Your task to perform on an android device: turn off priority inbox in the gmail app Image 0: 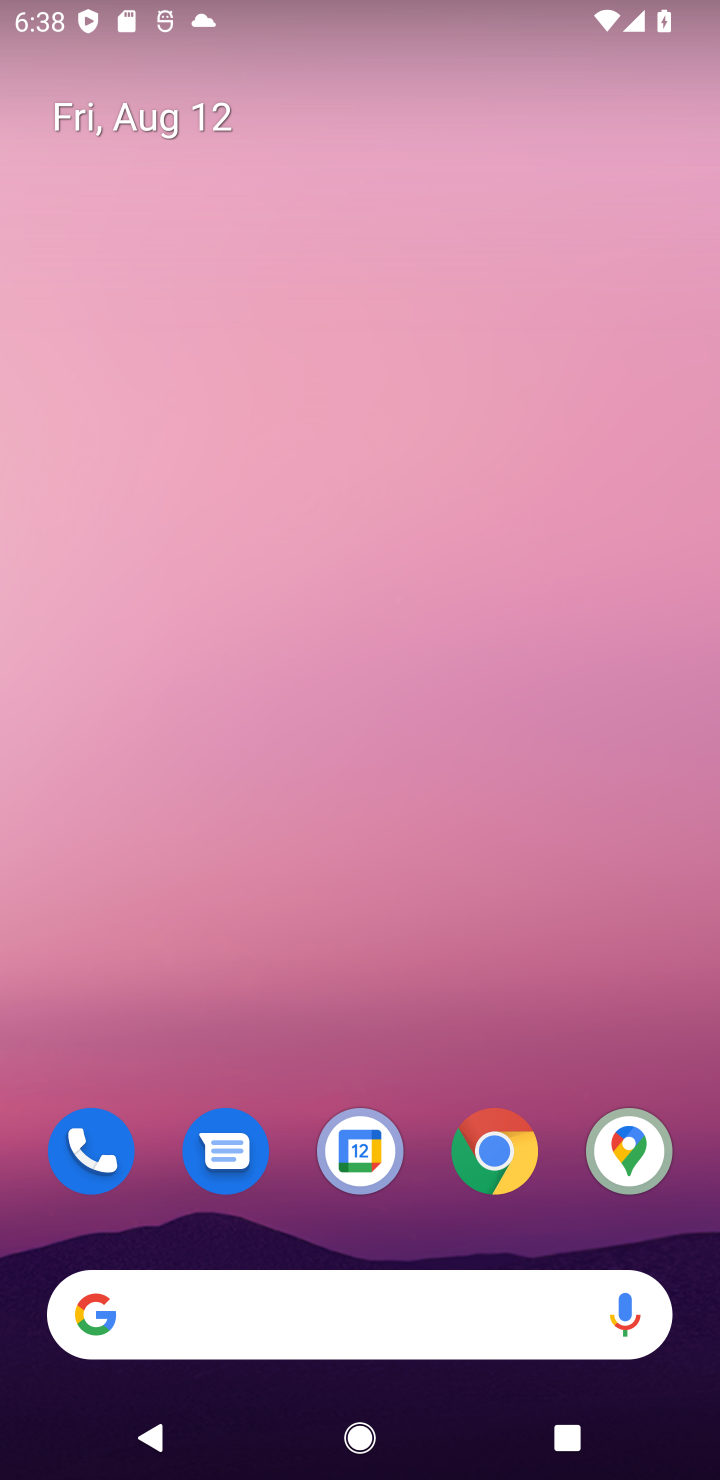
Step 0: drag from (475, 917) to (475, 0)
Your task to perform on an android device: turn off priority inbox in the gmail app Image 1: 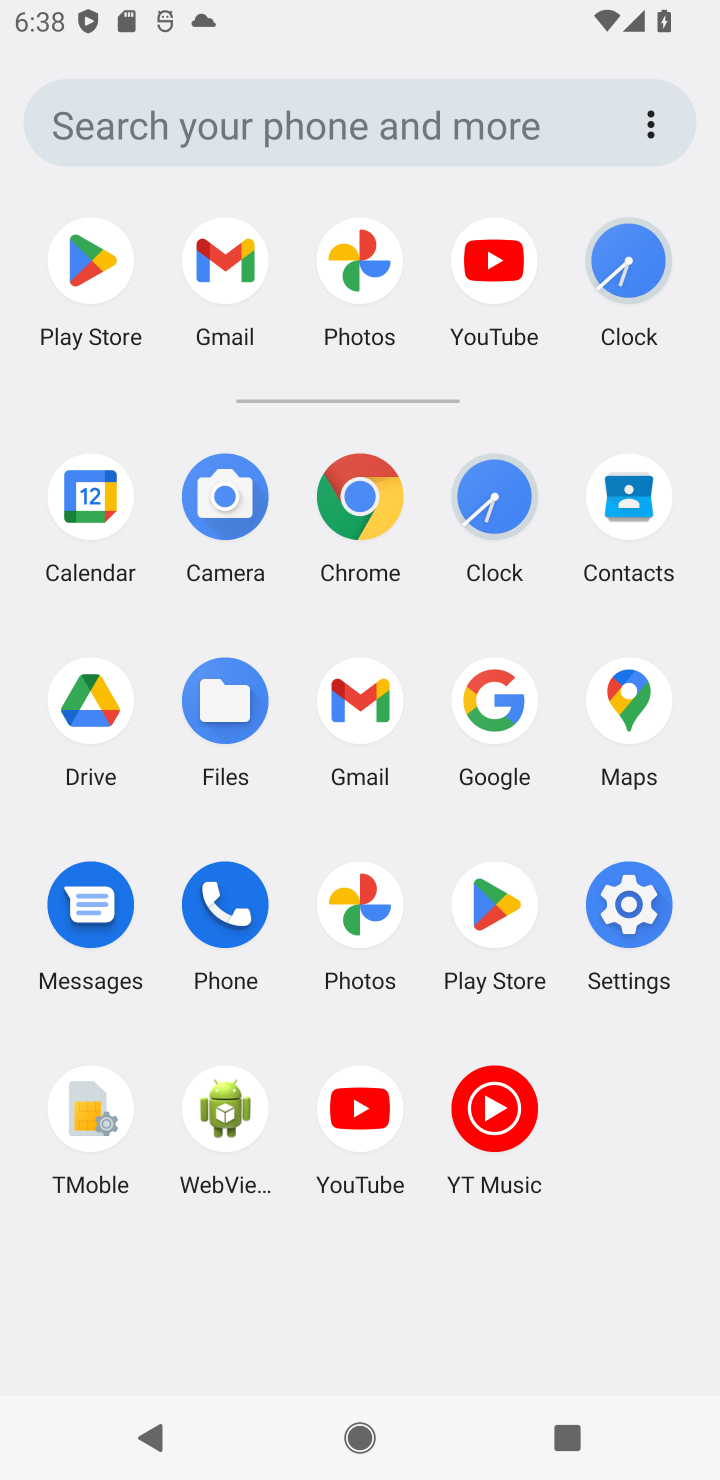
Step 1: click (353, 713)
Your task to perform on an android device: turn off priority inbox in the gmail app Image 2: 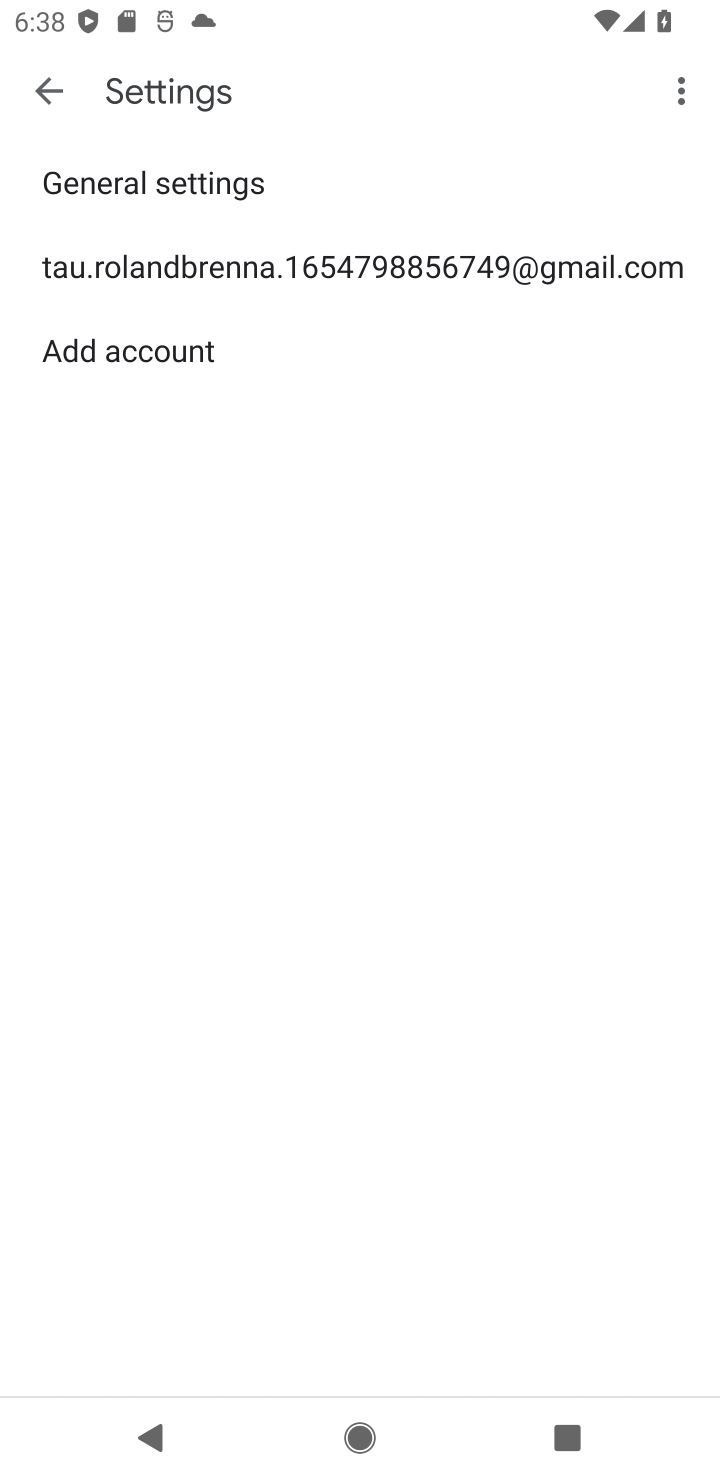
Step 2: click (291, 288)
Your task to perform on an android device: turn off priority inbox in the gmail app Image 3: 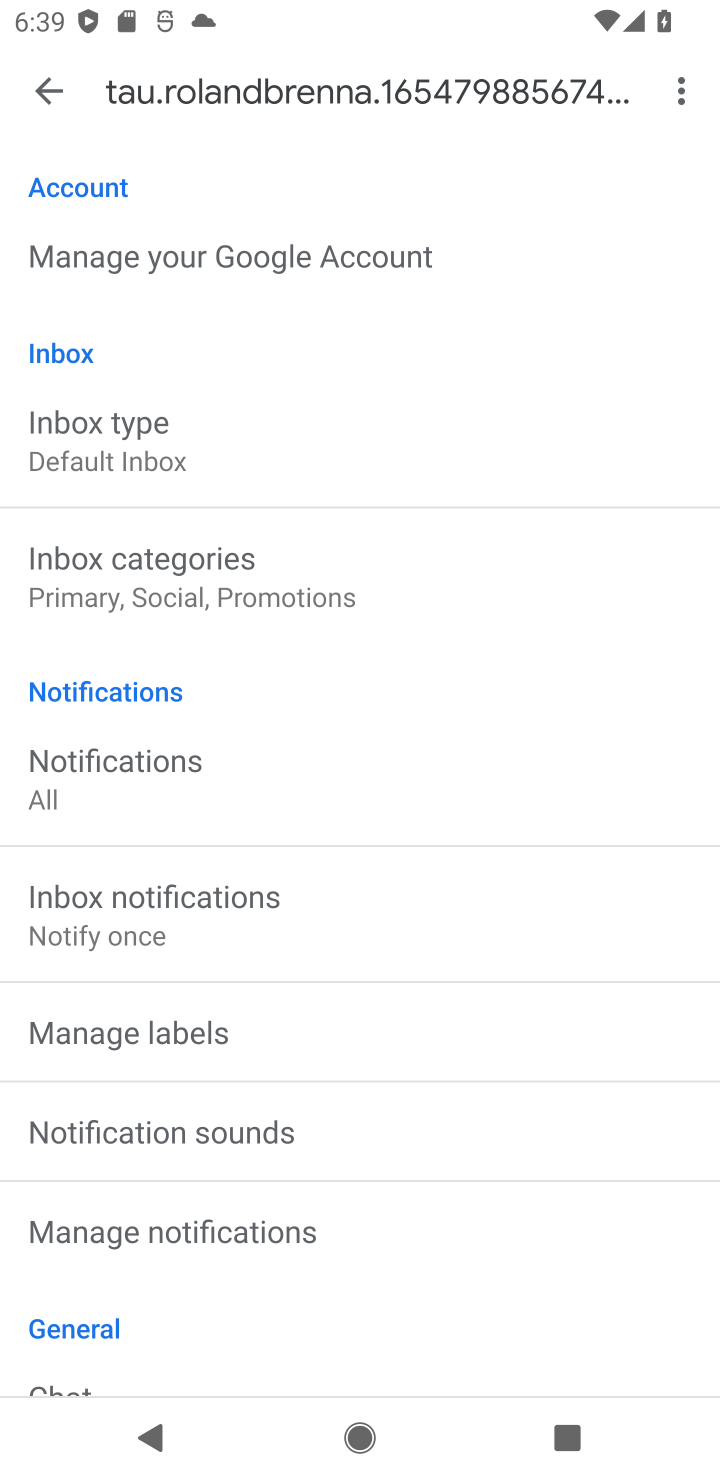
Step 3: click (158, 455)
Your task to perform on an android device: turn off priority inbox in the gmail app Image 4: 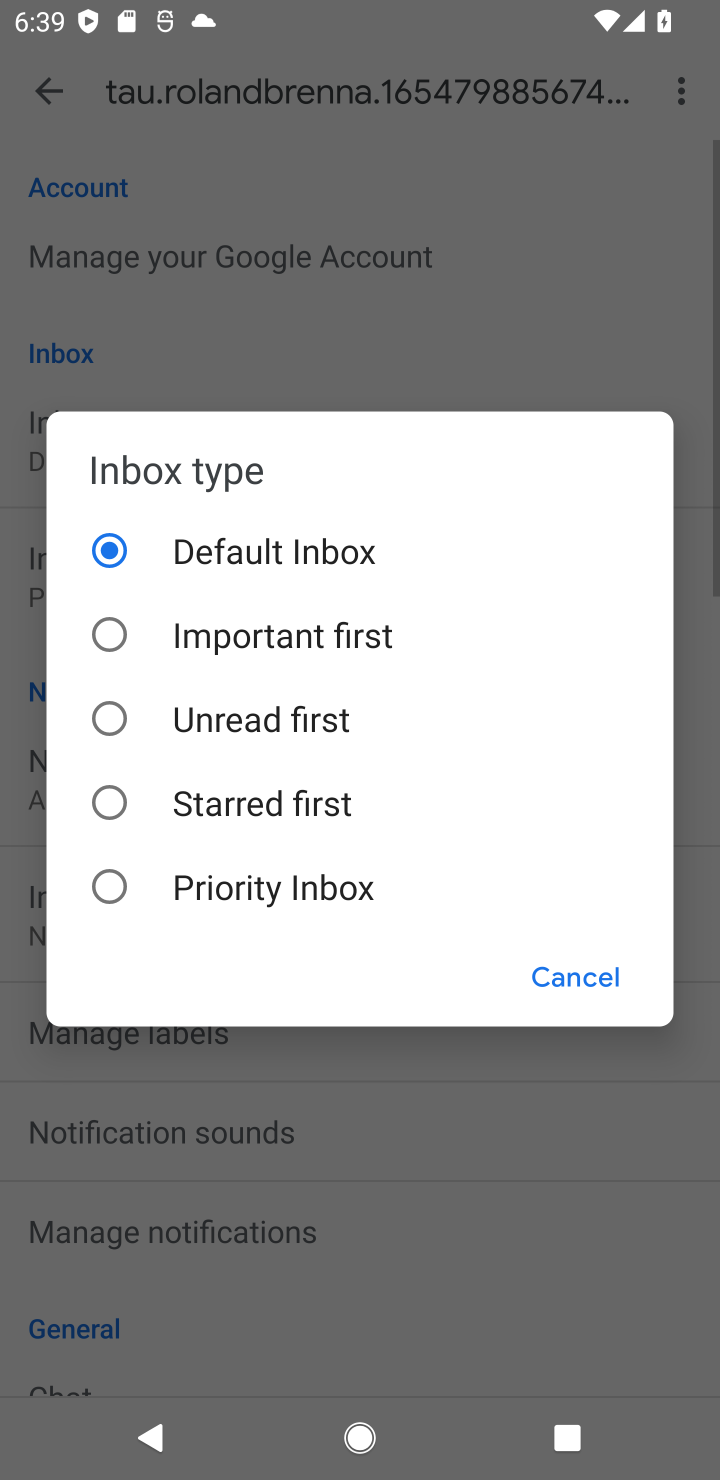
Step 4: task complete